Your task to perform on an android device: delete browsing data in the chrome app Image 0: 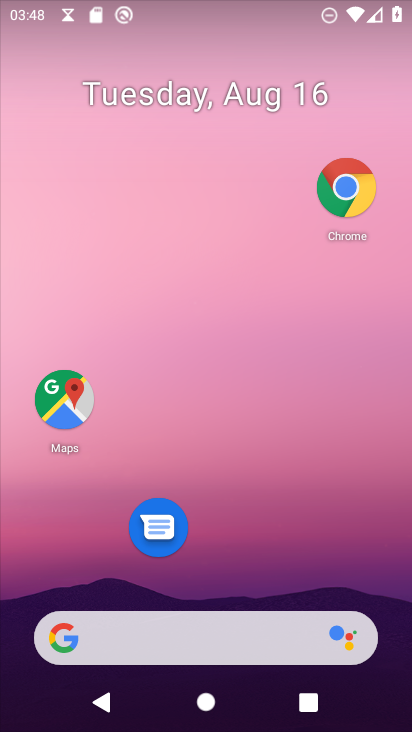
Step 0: press home button
Your task to perform on an android device: delete browsing data in the chrome app Image 1: 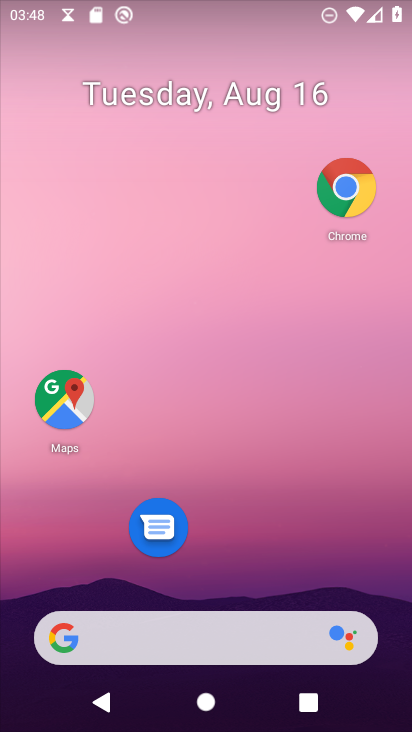
Step 1: drag from (227, 586) to (267, 54)
Your task to perform on an android device: delete browsing data in the chrome app Image 2: 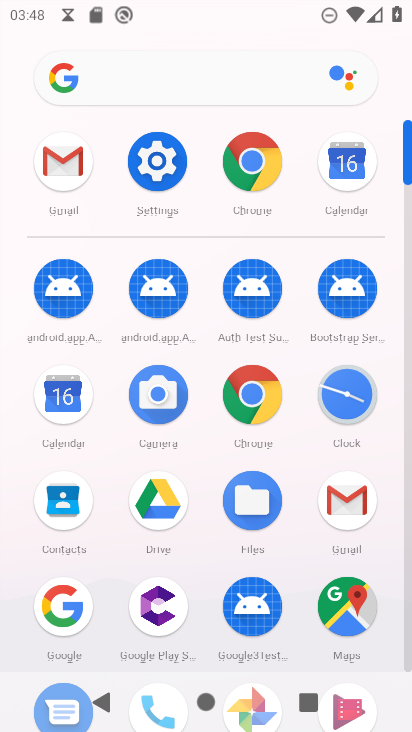
Step 2: click (246, 156)
Your task to perform on an android device: delete browsing data in the chrome app Image 3: 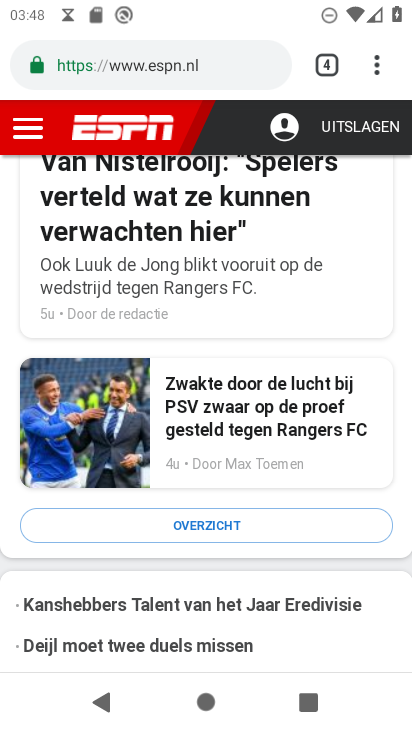
Step 3: click (374, 62)
Your task to perform on an android device: delete browsing data in the chrome app Image 4: 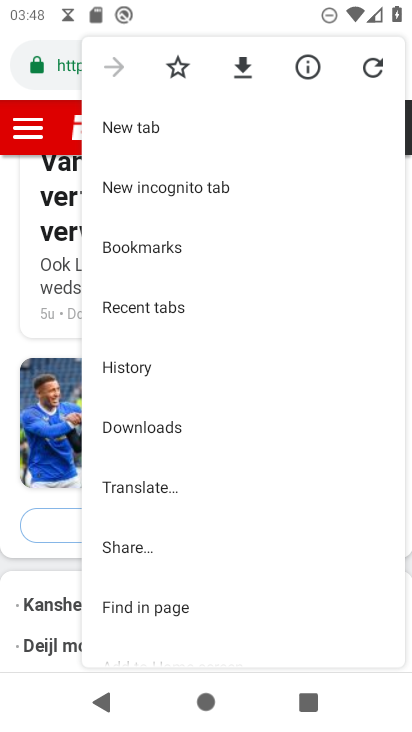
Step 4: click (158, 359)
Your task to perform on an android device: delete browsing data in the chrome app Image 5: 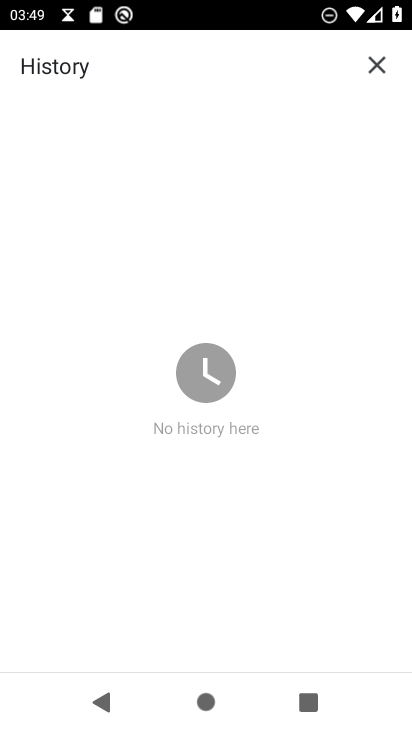
Step 5: task complete